Your task to perform on an android device: Go to internet settings Image 0: 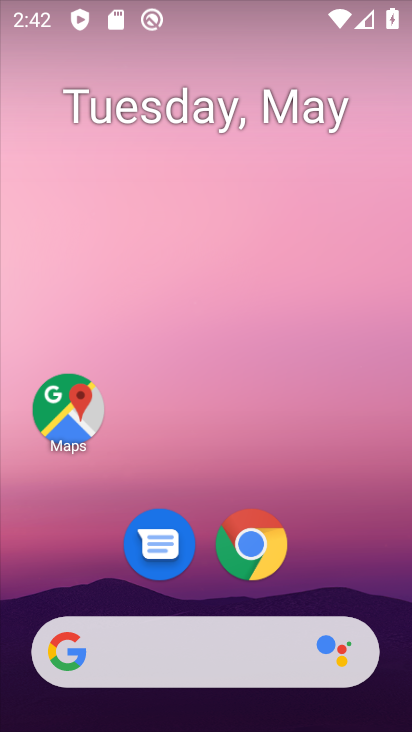
Step 0: drag from (318, 587) to (281, 126)
Your task to perform on an android device: Go to internet settings Image 1: 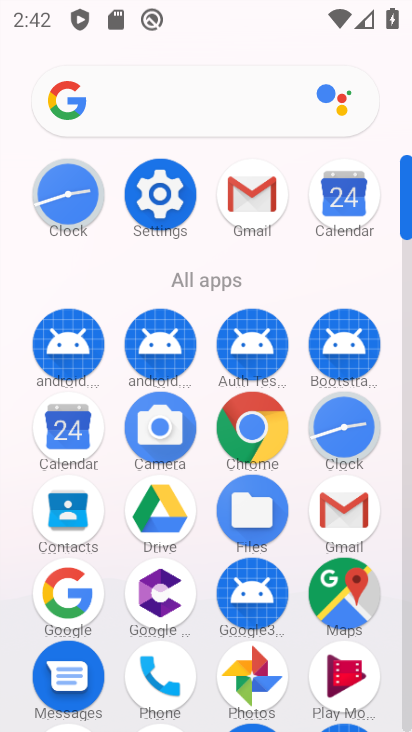
Step 1: click (161, 191)
Your task to perform on an android device: Go to internet settings Image 2: 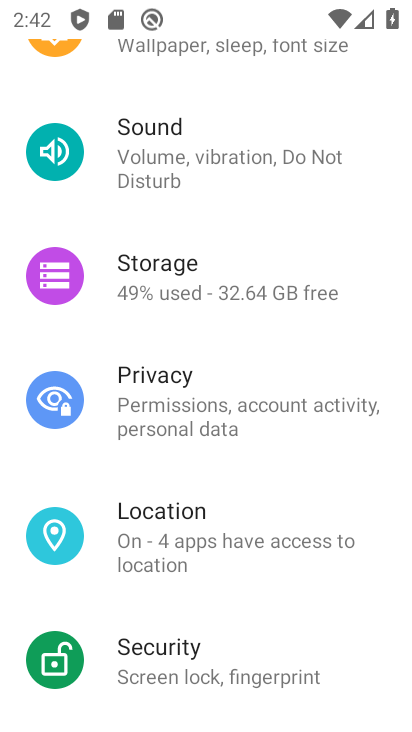
Step 2: drag from (244, 213) to (227, 314)
Your task to perform on an android device: Go to internet settings Image 3: 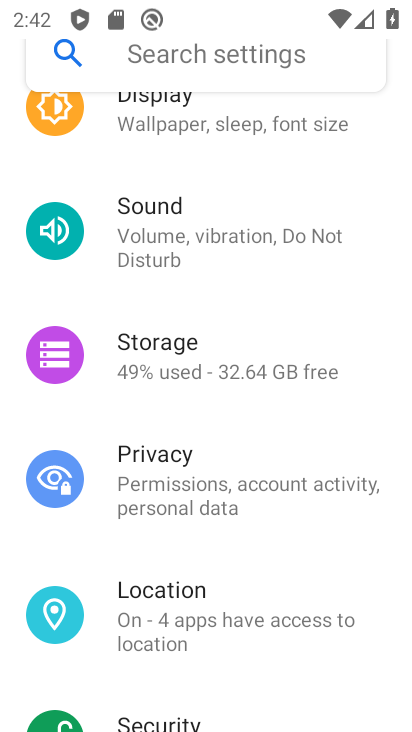
Step 3: drag from (231, 182) to (221, 315)
Your task to perform on an android device: Go to internet settings Image 4: 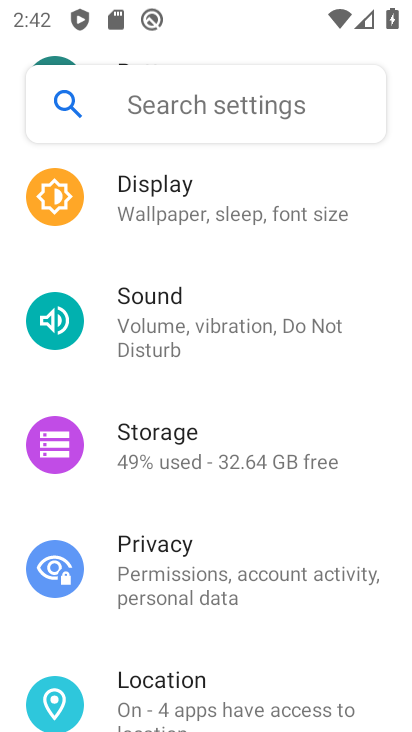
Step 4: drag from (222, 257) to (217, 423)
Your task to perform on an android device: Go to internet settings Image 5: 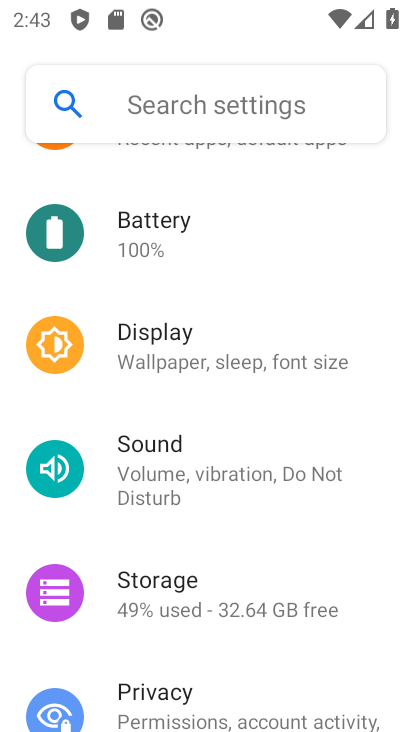
Step 5: drag from (218, 273) to (193, 418)
Your task to perform on an android device: Go to internet settings Image 6: 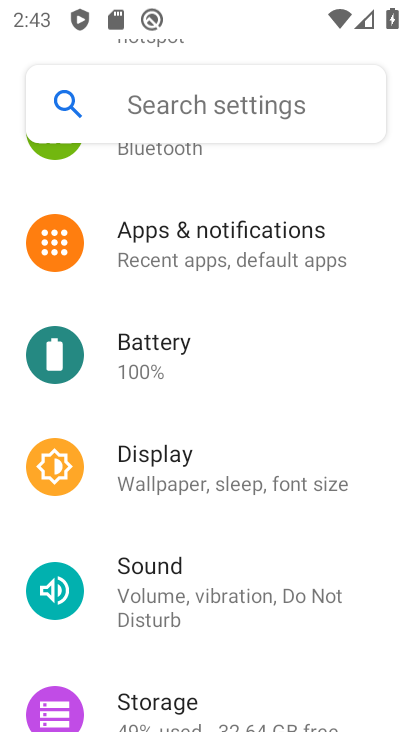
Step 6: drag from (239, 304) to (223, 439)
Your task to perform on an android device: Go to internet settings Image 7: 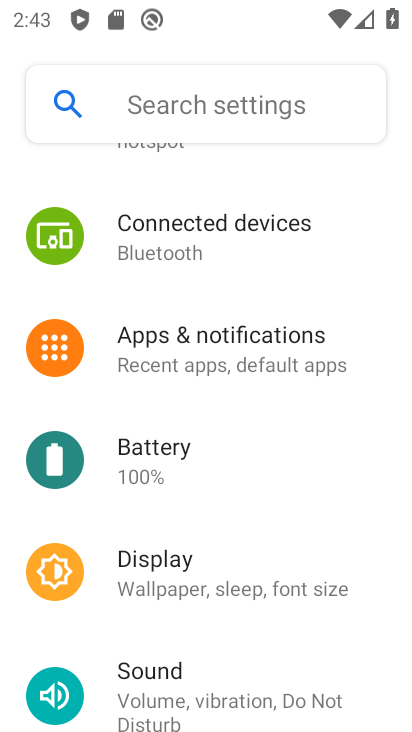
Step 7: drag from (250, 293) to (253, 436)
Your task to perform on an android device: Go to internet settings Image 8: 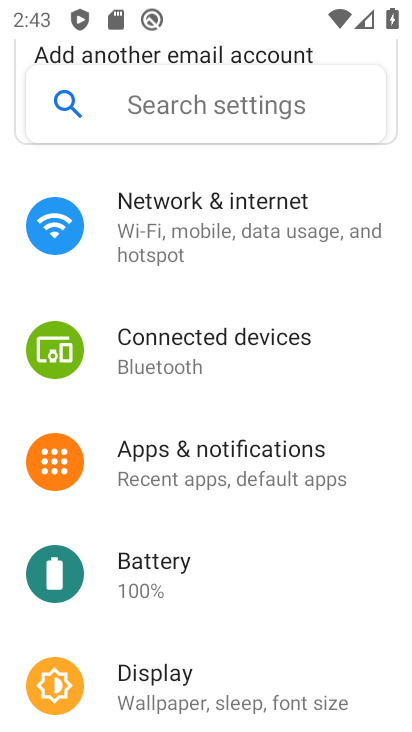
Step 8: click (235, 227)
Your task to perform on an android device: Go to internet settings Image 9: 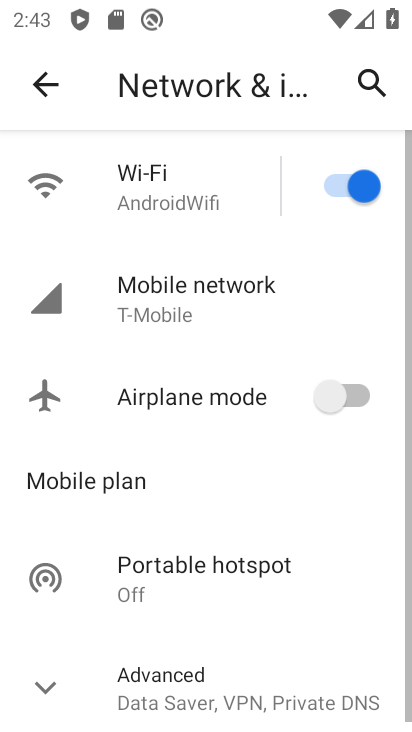
Step 9: click (200, 210)
Your task to perform on an android device: Go to internet settings Image 10: 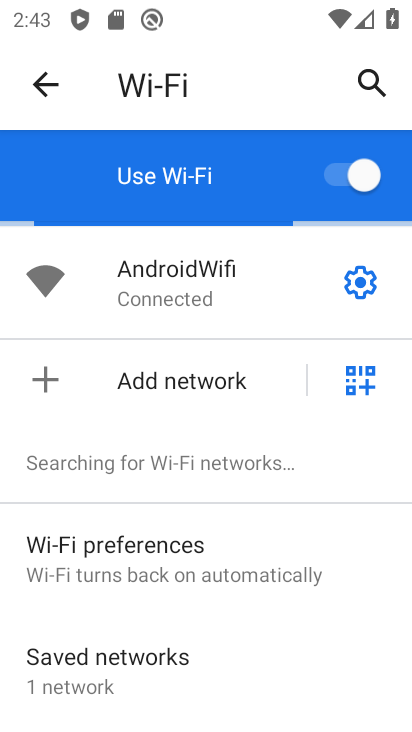
Step 10: task complete